Your task to perform on an android device: Go to Google Image 0: 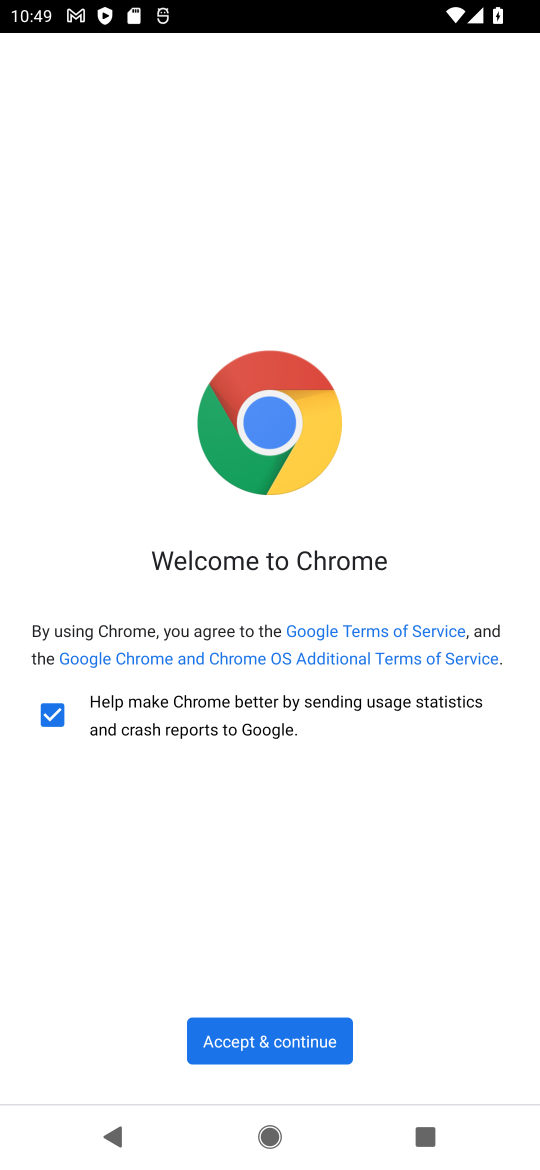
Step 0: press home button
Your task to perform on an android device: Go to Google Image 1: 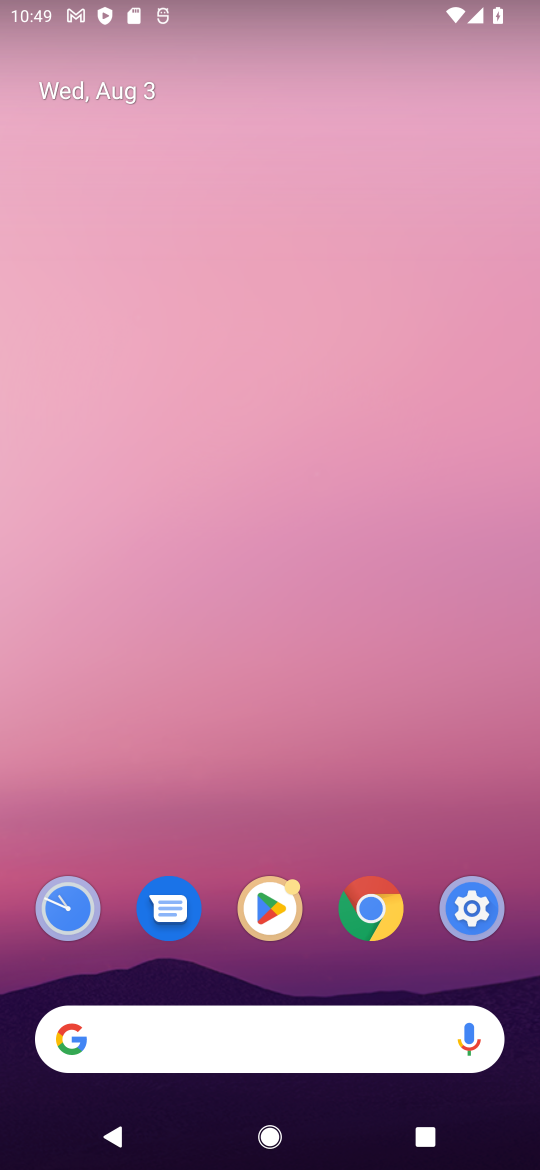
Step 1: drag from (205, 978) to (273, 304)
Your task to perform on an android device: Go to Google Image 2: 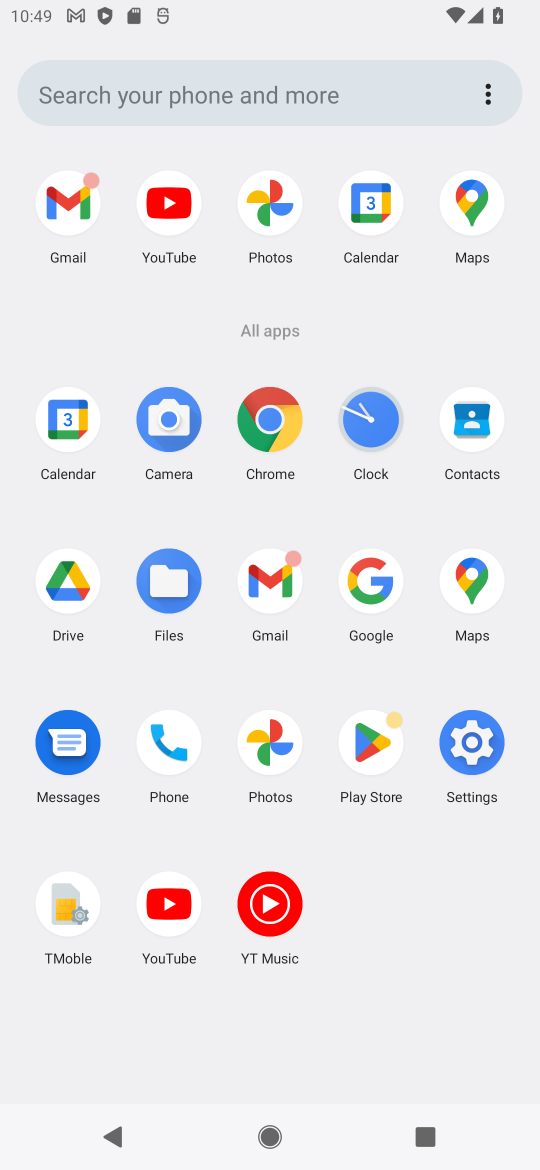
Step 2: click (365, 584)
Your task to perform on an android device: Go to Google Image 3: 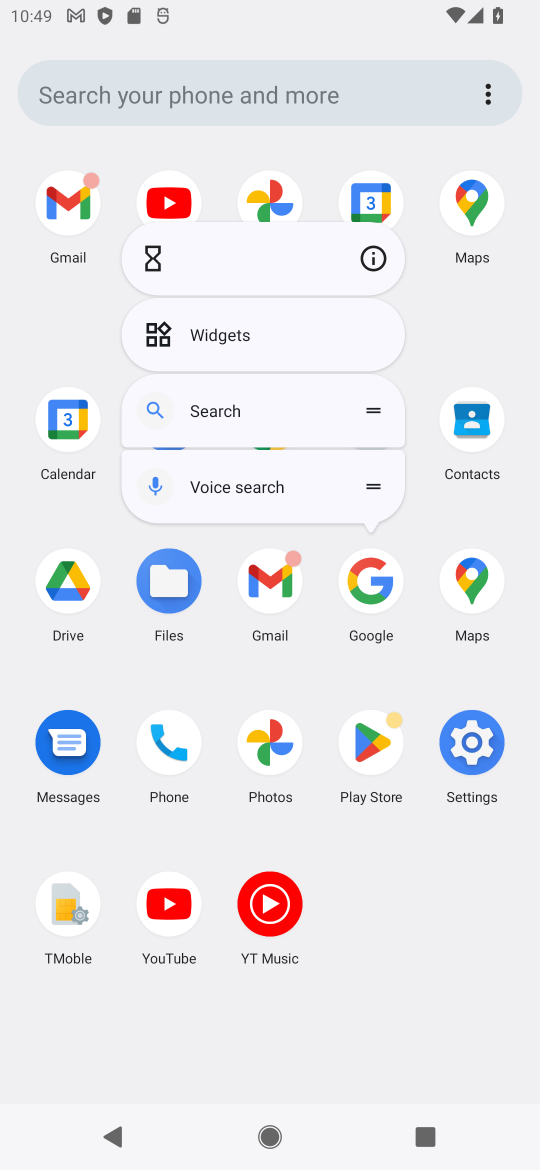
Step 3: click (373, 577)
Your task to perform on an android device: Go to Google Image 4: 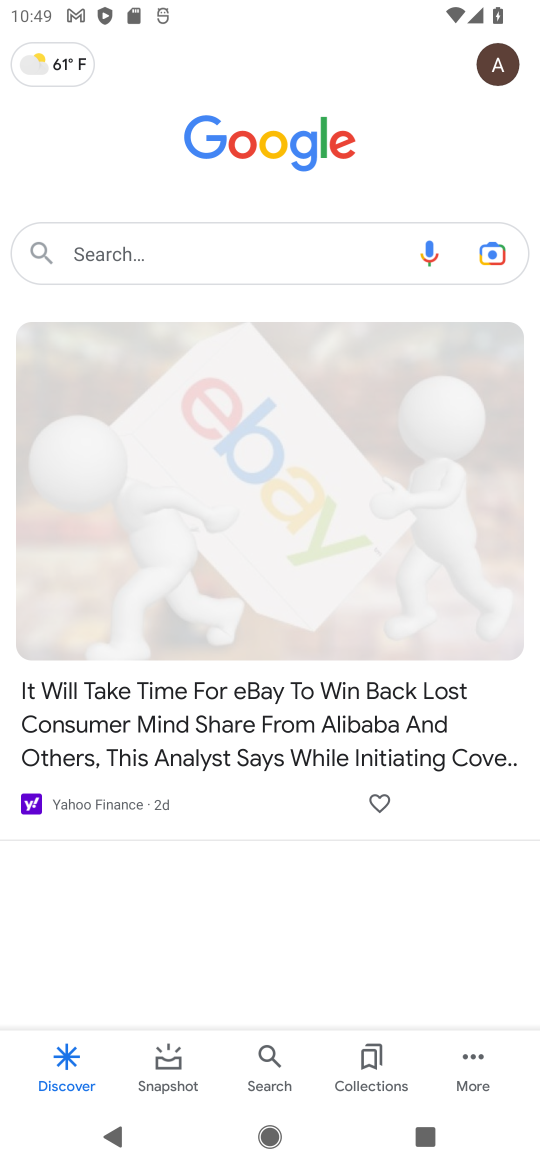
Step 4: task complete